Your task to perform on an android device: Go to Reddit.com Image 0: 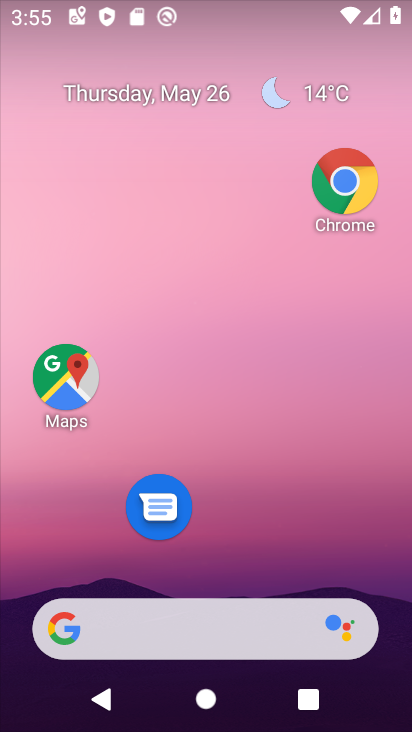
Step 0: drag from (291, 321) to (303, 102)
Your task to perform on an android device: Go to Reddit.com Image 1: 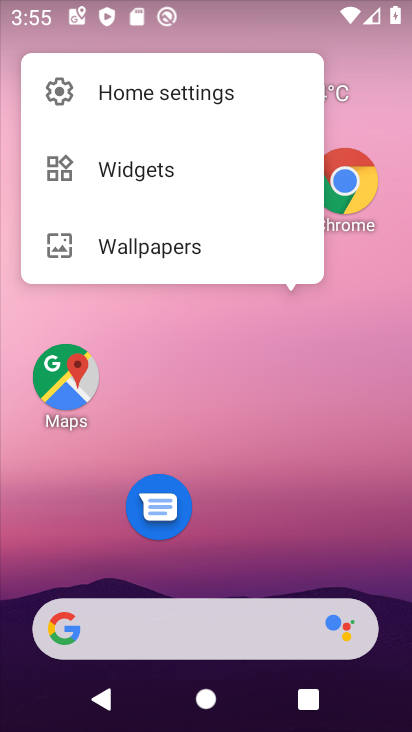
Step 1: click (304, 506)
Your task to perform on an android device: Go to Reddit.com Image 2: 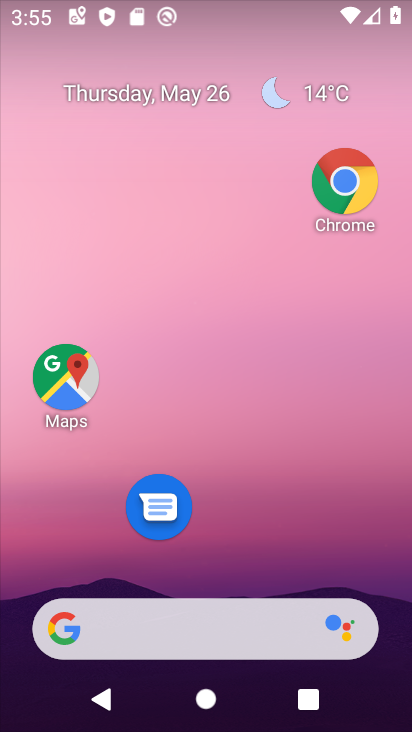
Step 2: drag from (259, 556) to (309, 41)
Your task to perform on an android device: Go to Reddit.com Image 3: 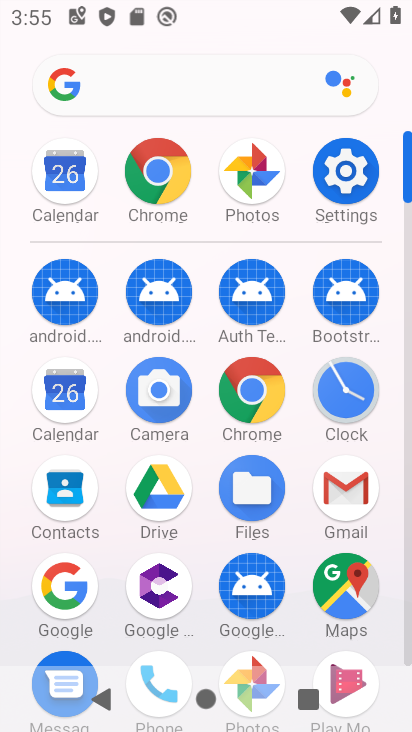
Step 3: click (254, 377)
Your task to perform on an android device: Go to Reddit.com Image 4: 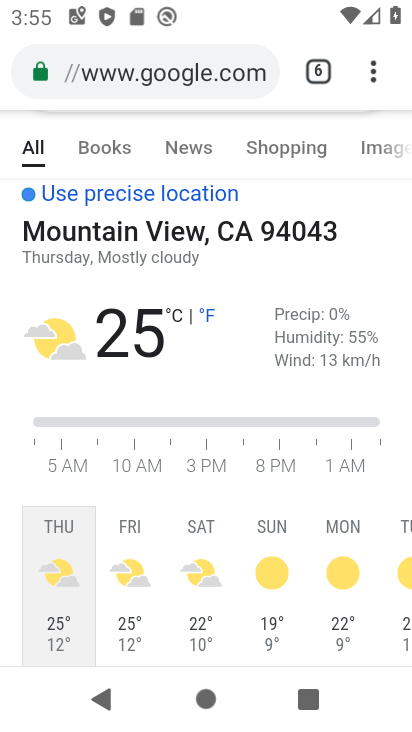
Step 4: click (209, 78)
Your task to perform on an android device: Go to Reddit.com Image 5: 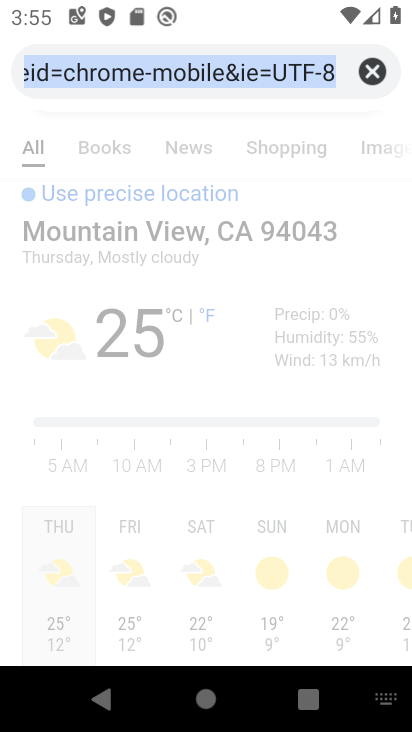
Step 5: click (362, 69)
Your task to perform on an android device: Go to Reddit.com Image 6: 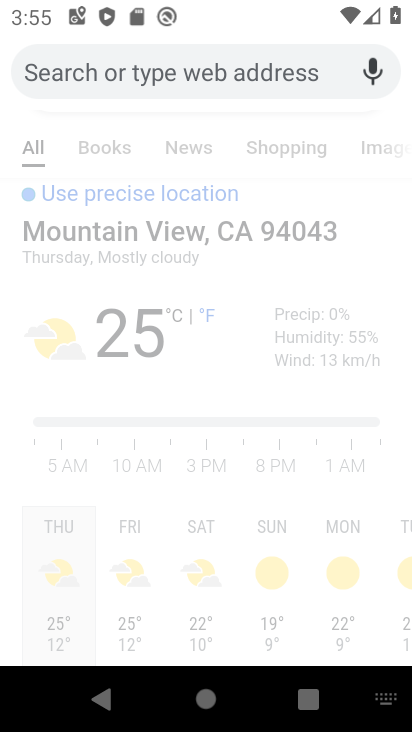
Step 6: type "Reddit.com"
Your task to perform on an android device: Go to Reddit.com Image 7: 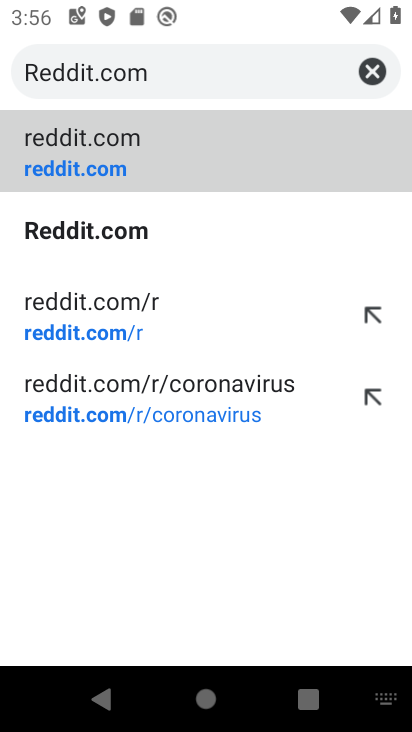
Step 7: click (89, 165)
Your task to perform on an android device: Go to Reddit.com Image 8: 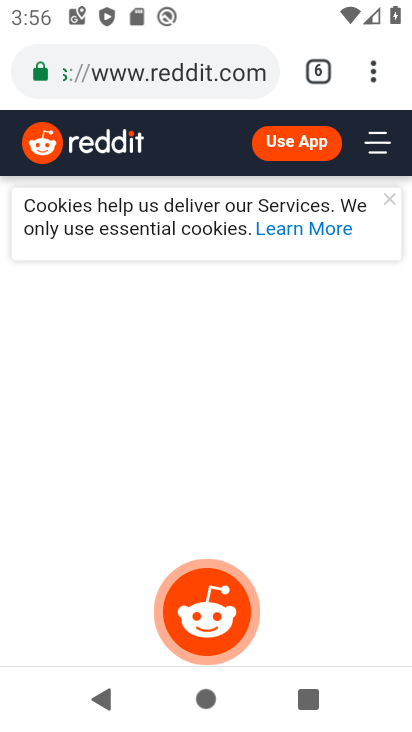
Step 8: task complete